Your task to perform on an android device: delete the emails in spam in the gmail app Image 0: 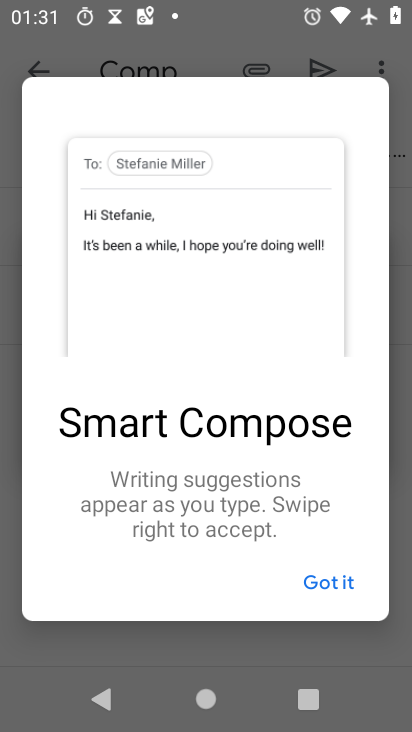
Step 0: press home button
Your task to perform on an android device: delete the emails in spam in the gmail app Image 1: 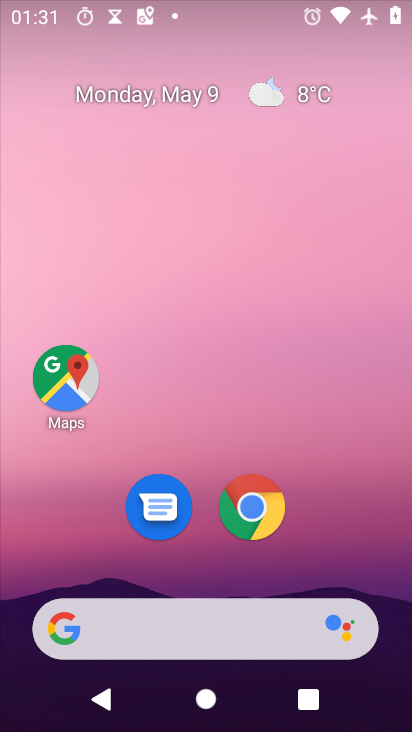
Step 1: drag from (221, 723) to (225, 300)
Your task to perform on an android device: delete the emails in spam in the gmail app Image 2: 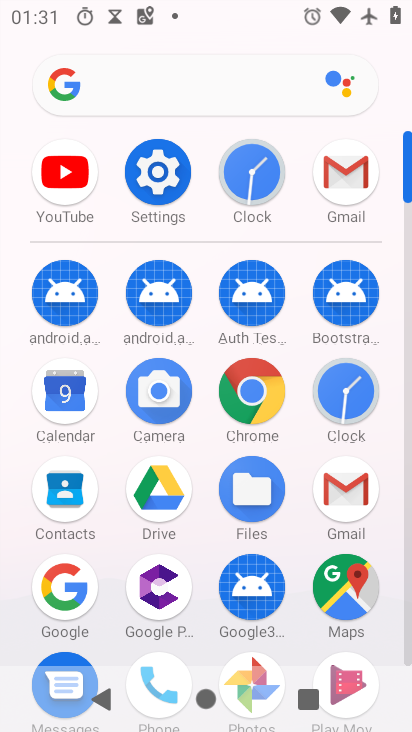
Step 2: click (345, 488)
Your task to perform on an android device: delete the emails in spam in the gmail app Image 3: 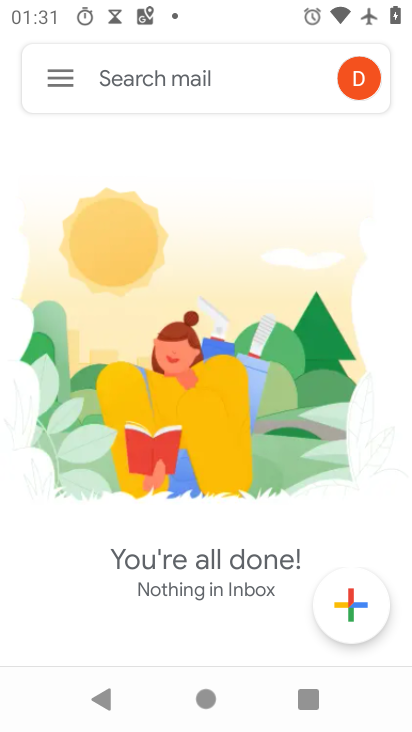
Step 3: click (48, 84)
Your task to perform on an android device: delete the emails in spam in the gmail app Image 4: 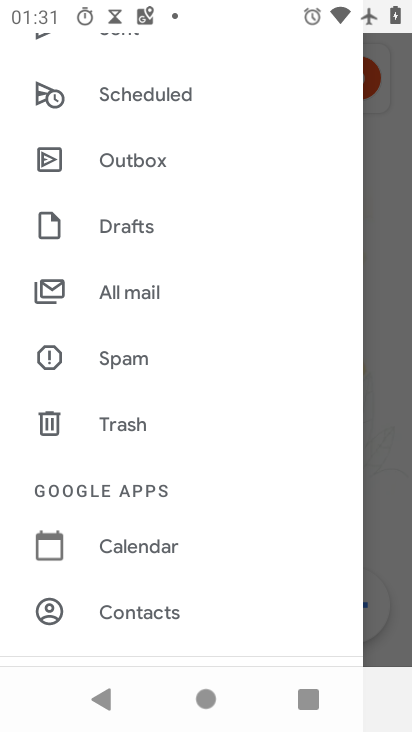
Step 4: click (106, 362)
Your task to perform on an android device: delete the emails in spam in the gmail app Image 5: 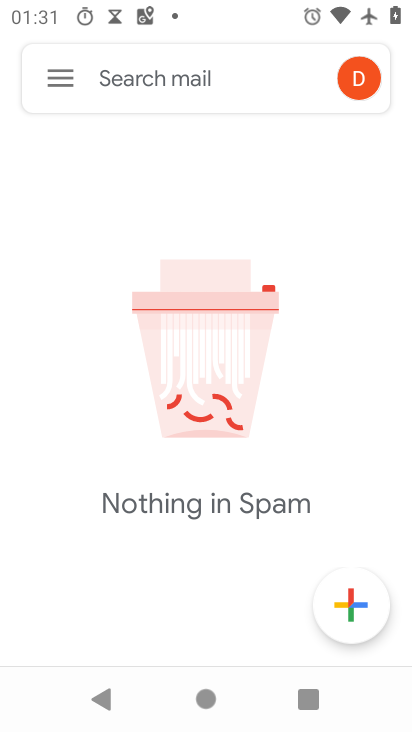
Step 5: task complete